Your task to perform on an android device: stop showing notifications on the lock screen Image 0: 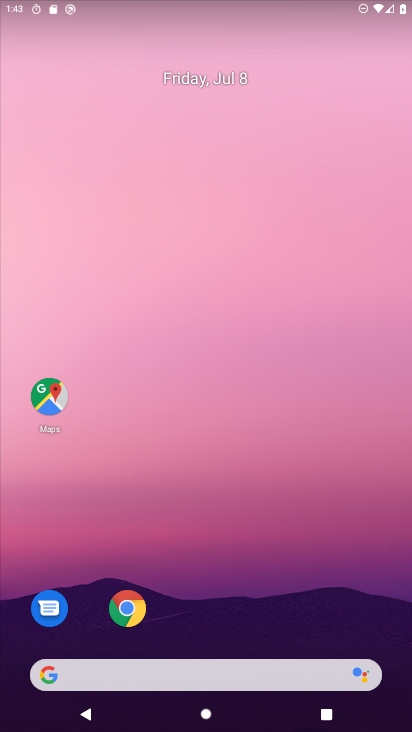
Step 0: drag from (249, 682) to (240, 67)
Your task to perform on an android device: stop showing notifications on the lock screen Image 1: 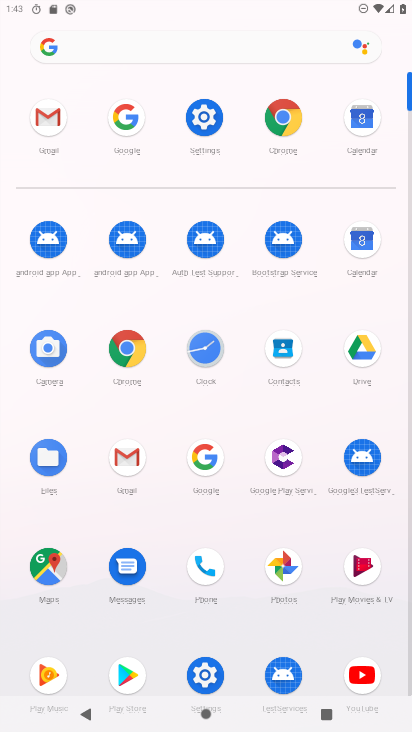
Step 1: click (196, 119)
Your task to perform on an android device: stop showing notifications on the lock screen Image 2: 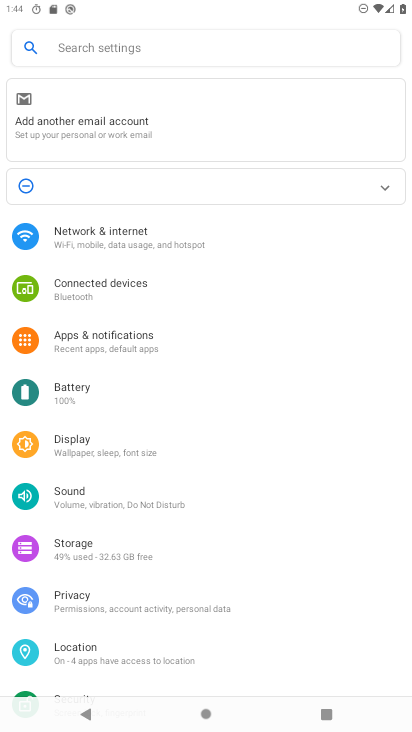
Step 2: click (125, 335)
Your task to perform on an android device: stop showing notifications on the lock screen Image 3: 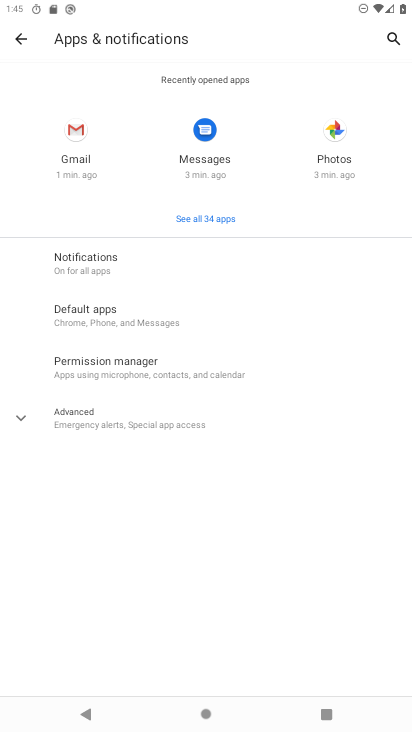
Step 3: click (89, 259)
Your task to perform on an android device: stop showing notifications on the lock screen Image 4: 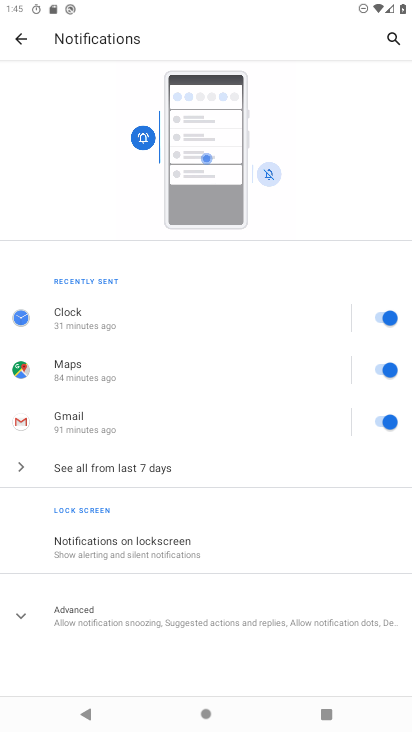
Step 4: click (125, 547)
Your task to perform on an android device: stop showing notifications on the lock screen Image 5: 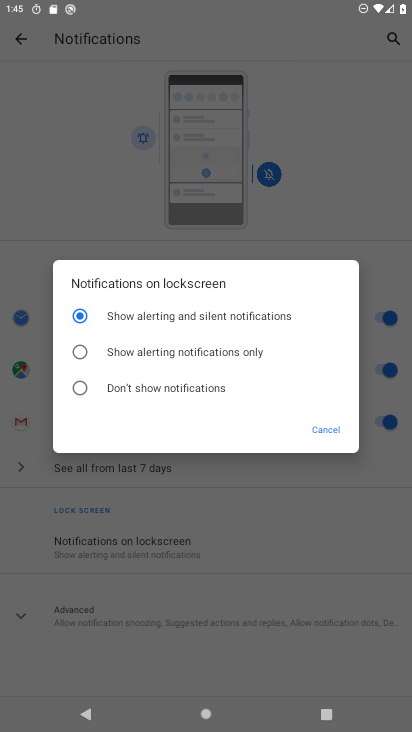
Step 5: click (78, 384)
Your task to perform on an android device: stop showing notifications on the lock screen Image 6: 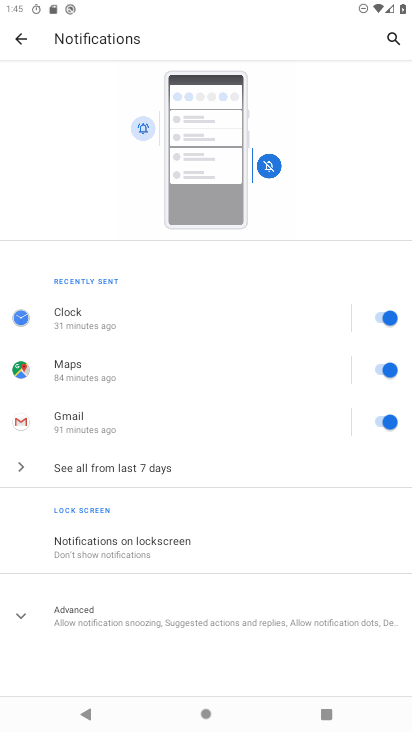
Step 6: task complete